Your task to perform on an android device: clear all cookies in the chrome app Image 0: 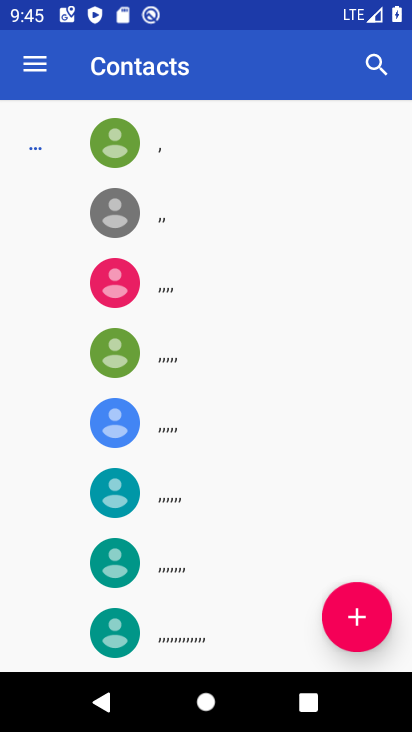
Step 0: press home button
Your task to perform on an android device: clear all cookies in the chrome app Image 1: 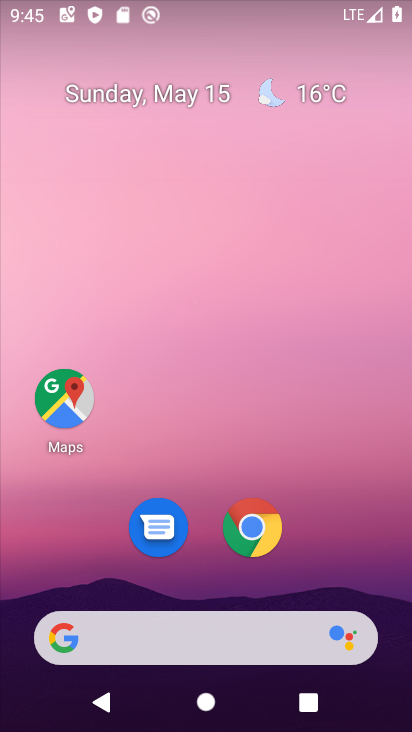
Step 1: click (254, 538)
Your task to perform on an android device: clear all cookies in the chrome app Image 2: 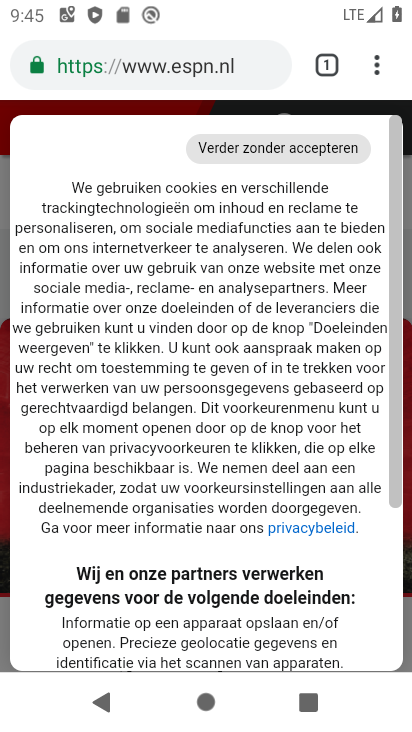
Step 2: click (377, 66)
Your task to perform on an android device: clear all cookies in the chrome app Image 3: 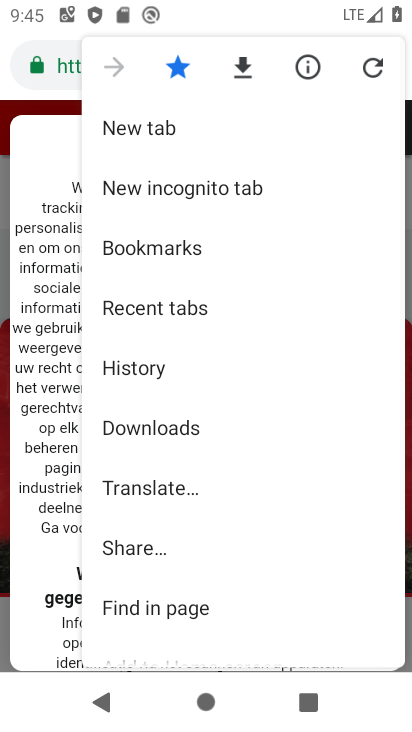
Step 3: drag from (250, 575) to (238, 33)
Your task to perform on an android device: clear all cookies in the chrome app Image 4: 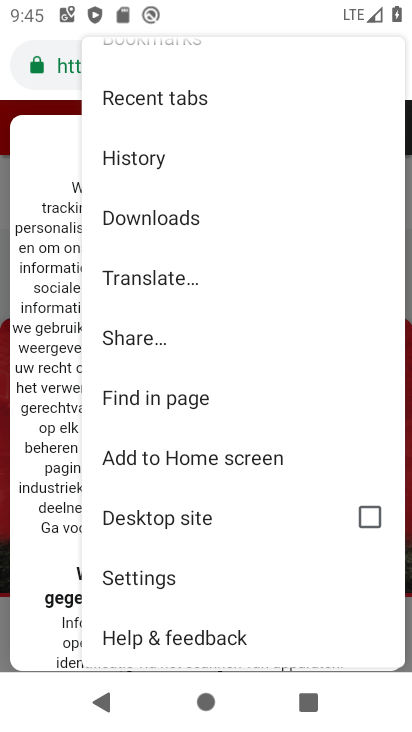
Step 4: click (135, 581)
Your task to perform on an android device: clear all cookies in the chrome app Image 5: 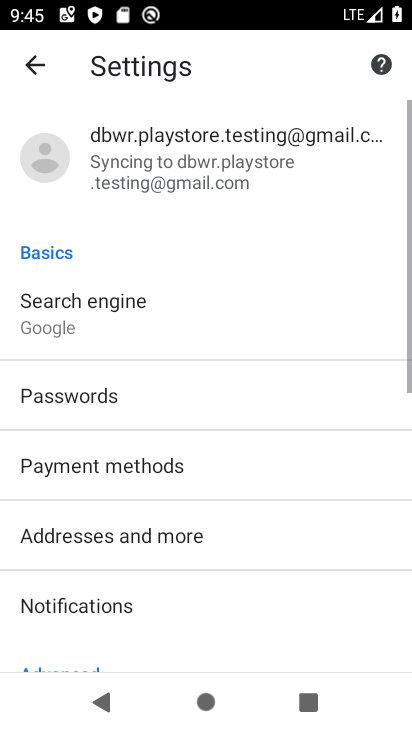
Step 5: drag from (185, 560) to (196, 115)
Your task to perform on an android device: clear all cookies in the chrome app Image 6: 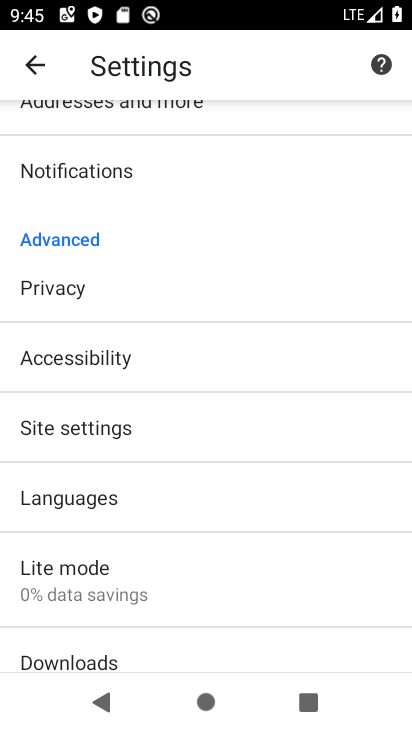
Step 6: click (59, 284)
Your task to perform on an android device: clear all cookies in the chrome app Image 7: 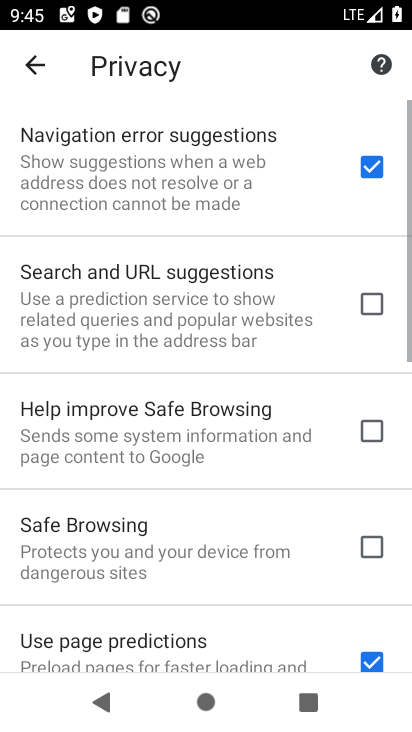
Step 7: drag from (226, 425) to (146, 6)
Your task to perform on an android device: clear all cookies in the chrome app Image 8: 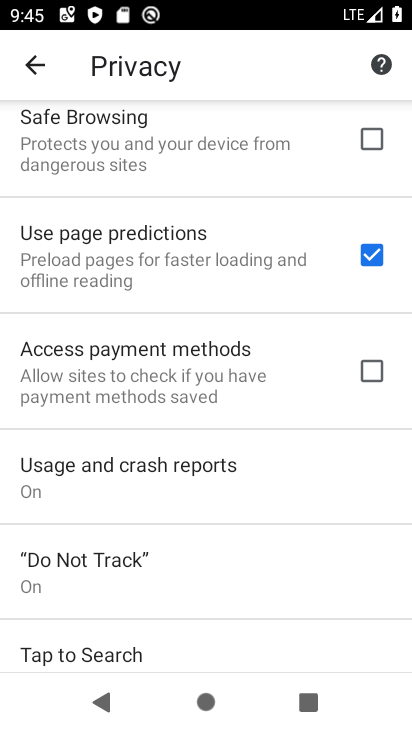
Step 8: drag from (242, 478) to (191, 108)
Your task to perform on an android device: clear all cookies in the chrome app Image 9: 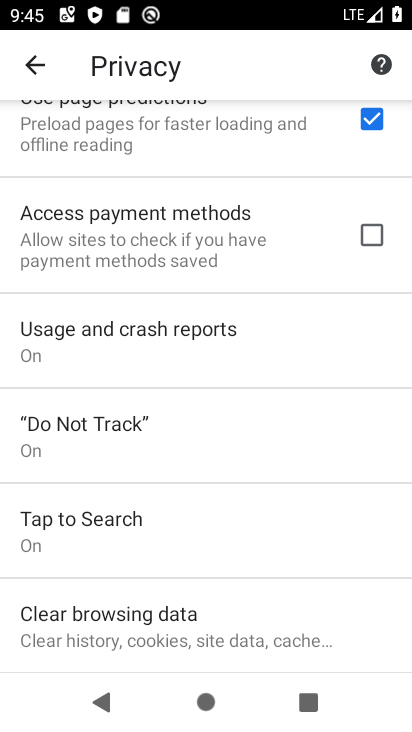
Step 9: click (164, 617)
Your task to perform on an android device: clear all cookies in the chrome app Image 10: 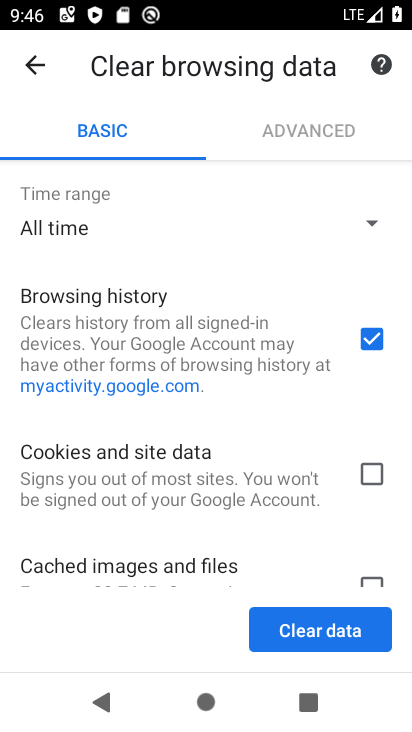
Step 10: click (364, 335)
Your task to perform on an android device: clear all cookies in the chrome app Image 11: 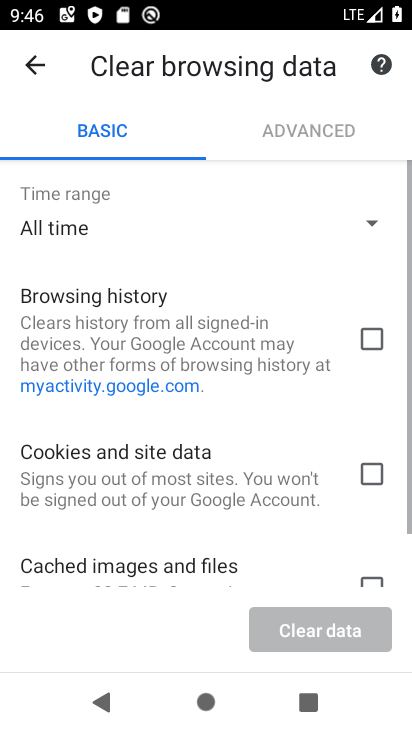
Step 11: click (379, 473)
Your task to perform on an android device: clear all cookies in the chrome app Image 12: 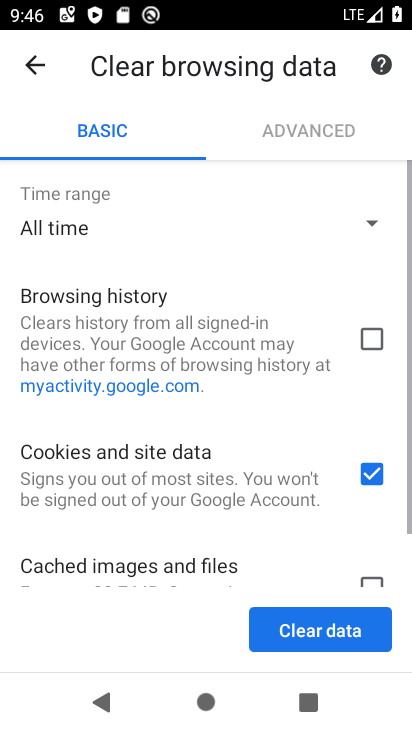
Step 12: drag from (225, 546) to (211, 225)
Your task to perform on an android device: clear all cookies in the chrome app Image 13: 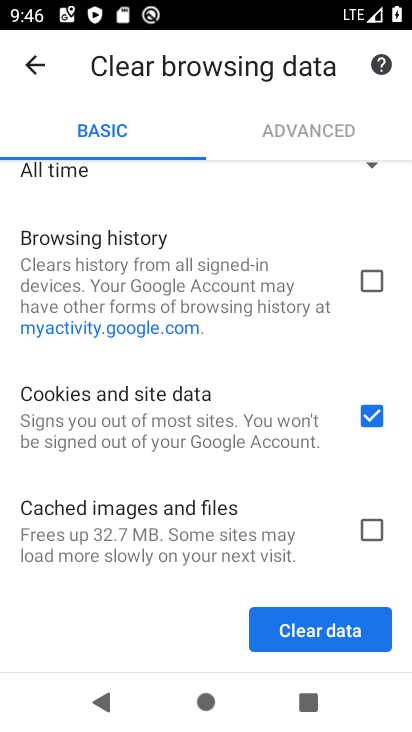
Step 13: click (314, 638)
Your task to perform on an android device: clear all cookies in the chrome app Image 14: 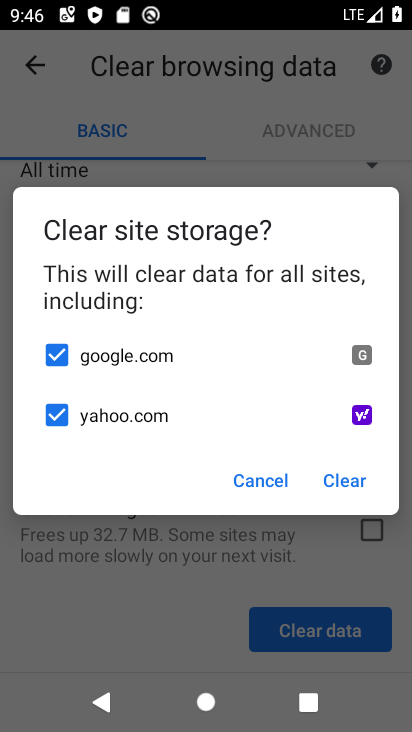
Step 14: click (337, 479)
Your task to perform on an android device: clear all cookies in the chrome app Image 15: 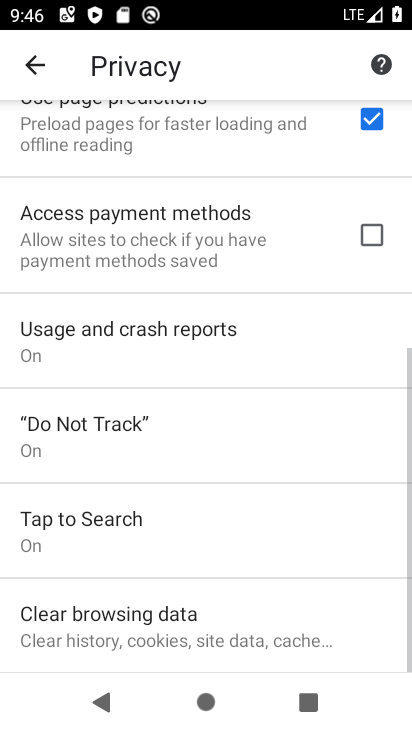
Step 15: task complete